Your task to perform on an android device: When is my next meeting? Image 0: 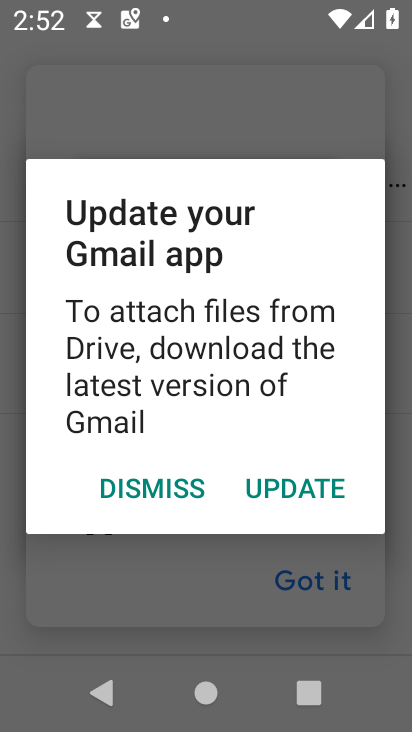
Step 0: press home button
Your task to perform on an android device: When is my next meeting? Image 1: 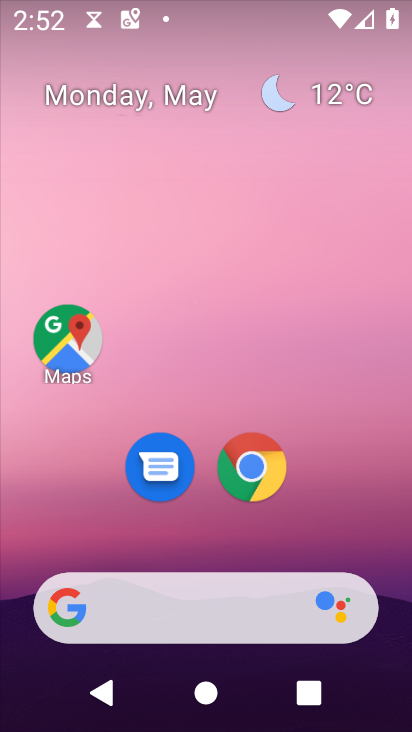
Step 1: drag from (385, 559) to (294, 110)
Your task to perform on an android device: When is my next meeting? Image 2: 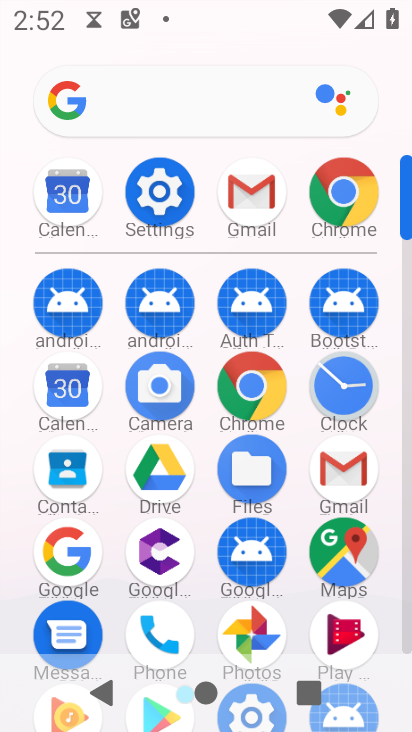
Step 2: click (73, 191)
Your task to perform on an android device: When is my next meeting? Image 3: 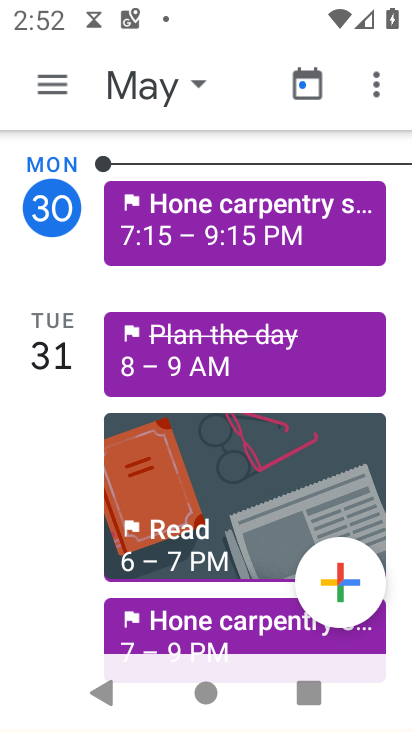
Step 3: task complete